Your task to perform on an android device: change notifications settings Image 0: 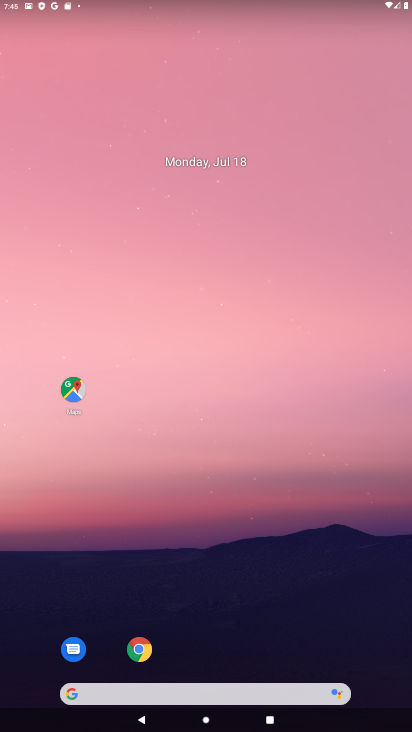
Step 0: drag from (282, 573) to (405, 237)
Your task to perform on an android device: change notifications settings Image 1: 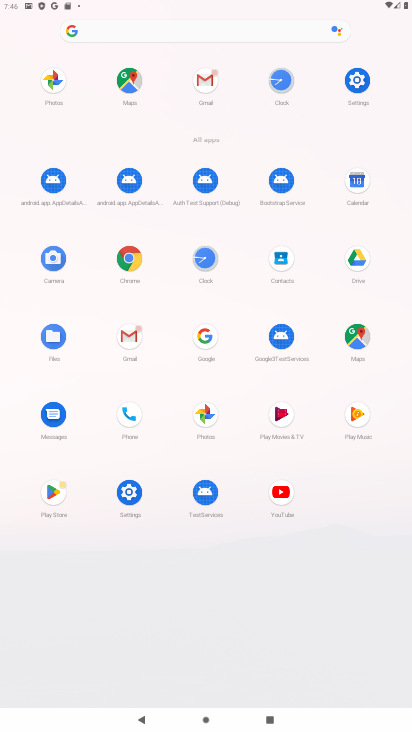
Step 1: click (126, 496)
Your task to perform on an android device: change notifications settings Image 2: 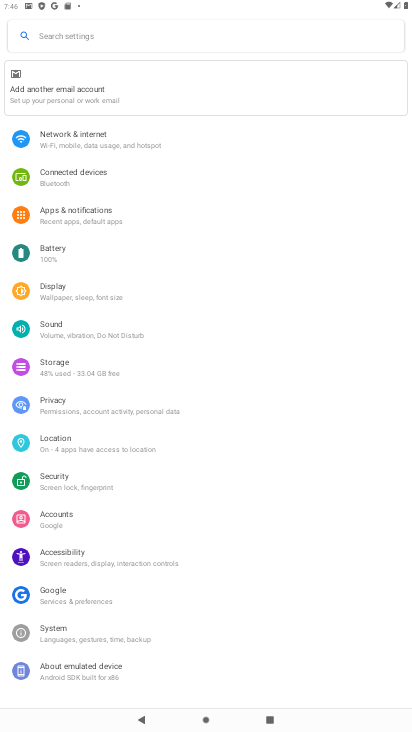
Step 2: click (90, 210)
Your task to perform on an android device: change notifications settings Image 3: 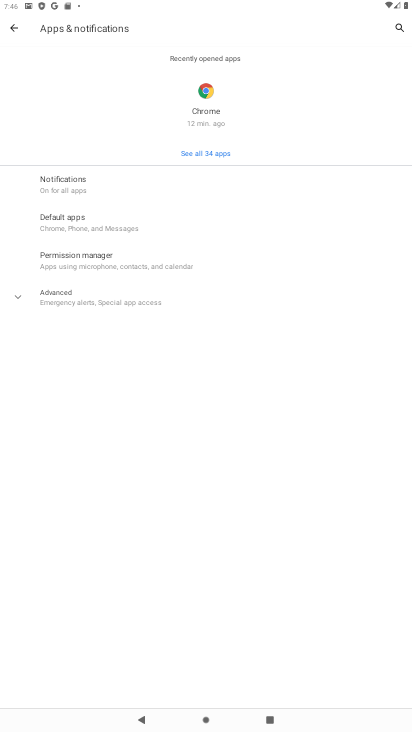
Step 3: click (122, 187)
Your task to perform on an android device: change notifications settings Image 4: 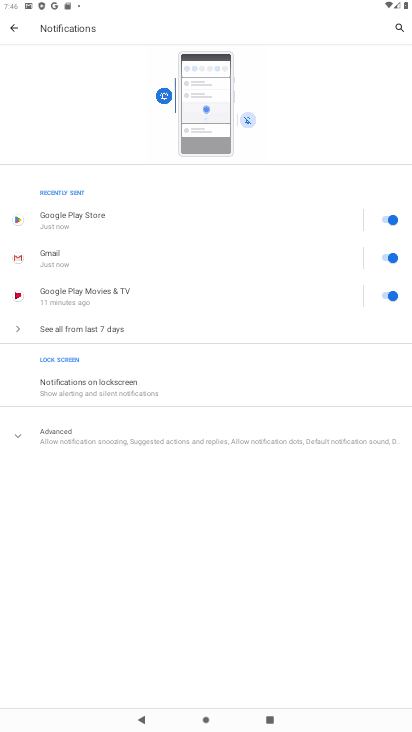
Step 4: click (151, 337)
Your task to perform on an android device: change notifications settings Image 5: 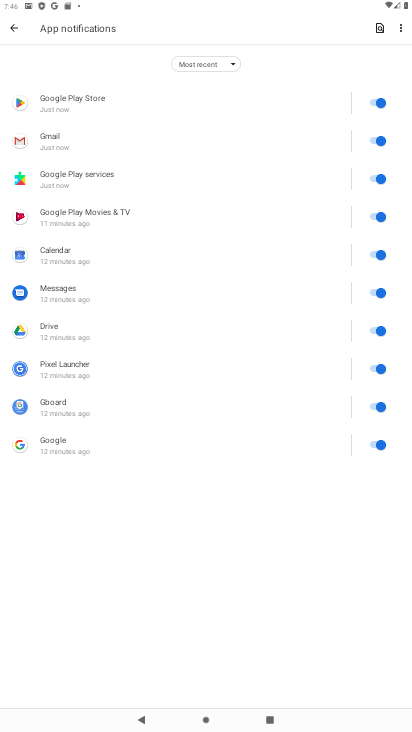
Step 5: click (379, 100)
Your task to perform on an android device: change notifications settings Image 6: 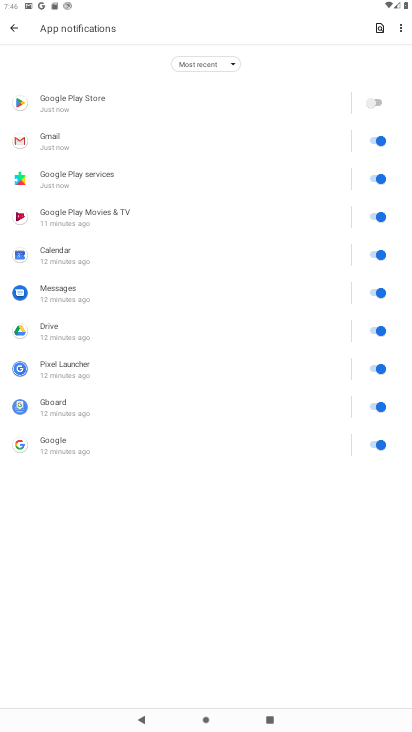
Step 6: click (379, 144)
Your task to perform on an android device: change notifications settings Image 7: 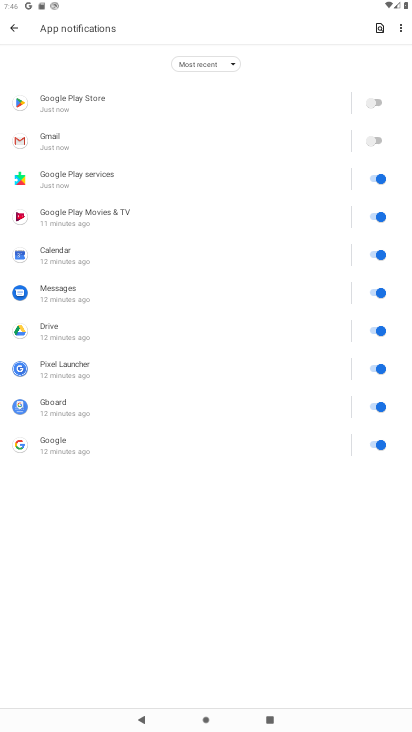
Step 7: click (379, 181)
Your task to perform on an android device: change notifications settings Image 8: 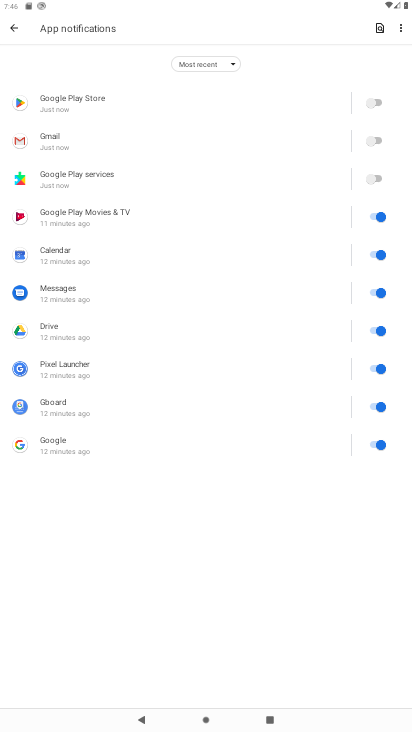
Step 8: click (379, 229)
Your task to perform on an android device: change notifications settings Image 9: 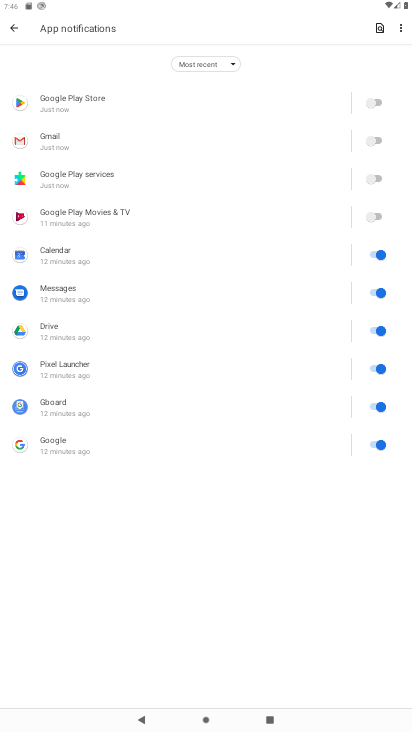
Step 9: click (379, 261)
Your task to perform on an android device: change notifications settings Image 10: 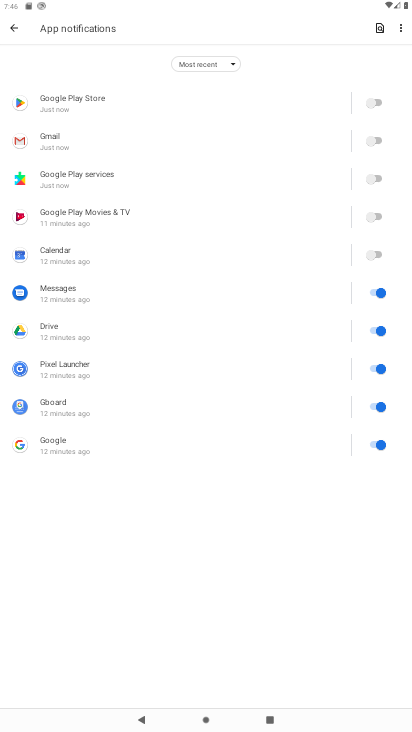
Step 10: click (383, 295)
Your task to perform on an android device: change notifications settings Image 11: 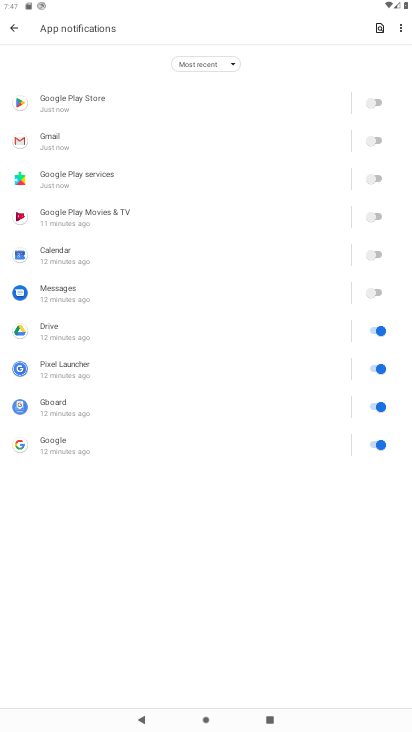
Step 11: click (384, 343)
Your task to perform on an android device: change notifications settings Image 12: 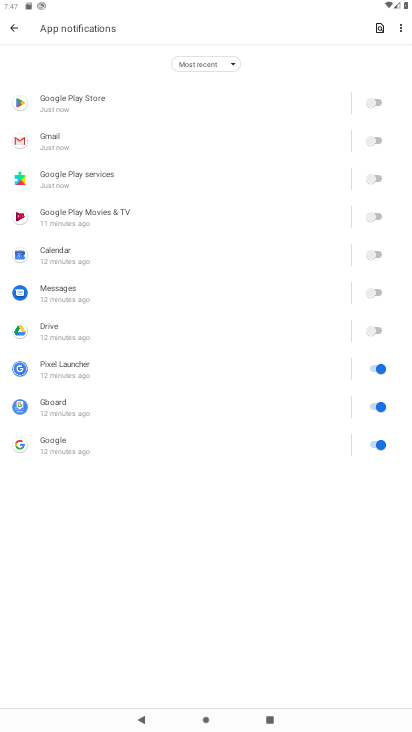
Step 12: click (376, 368)
Your task to perform on an android device: change notifications settings Image 13: 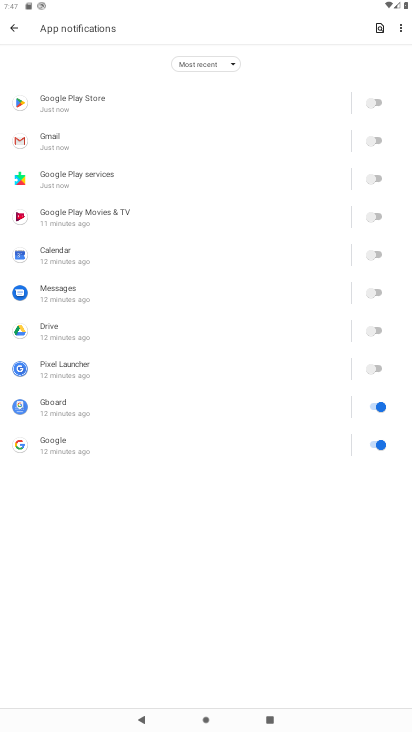
Step 13: click (384, 402)
Your task to perform on an android device: change notifications settings Image 14: 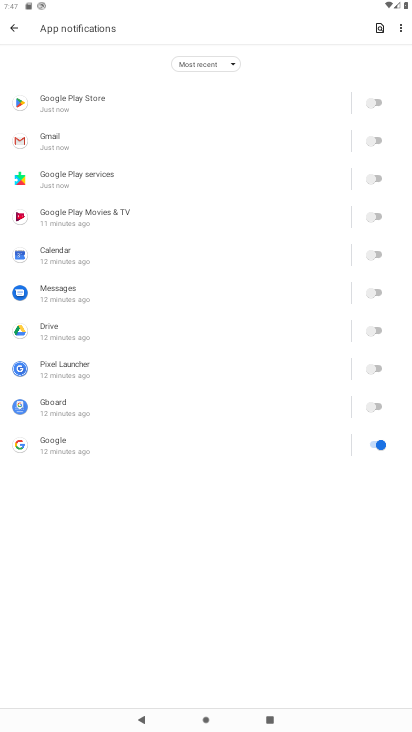
Step 14: click (381, 441)
Your task to perform on an android device: change notifications settings Image 15: 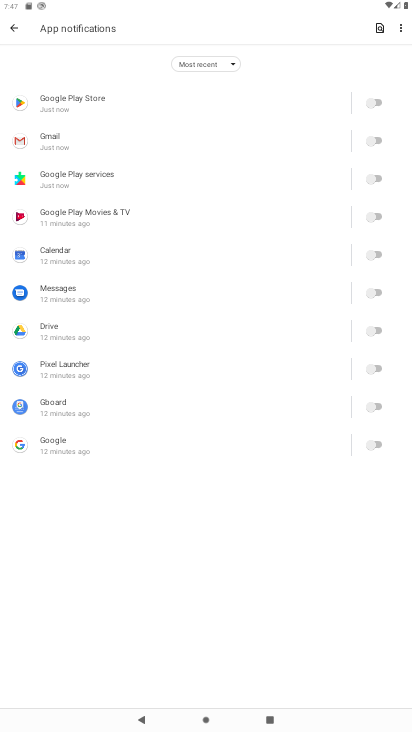
Step 15: click (18, 29)
Your task to perform on an android device: change notifications settings Image 16: 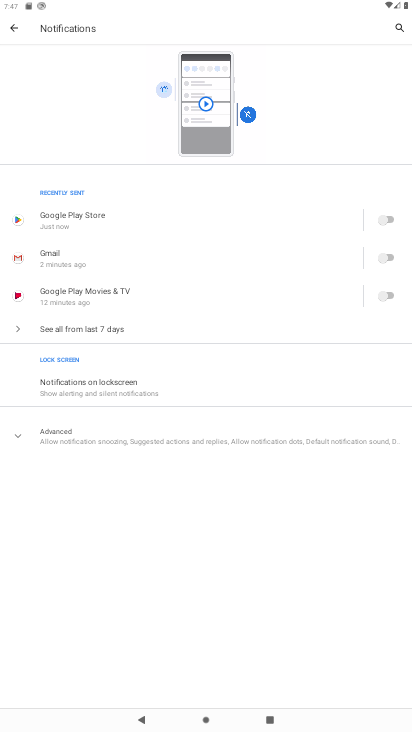
Step 16: click (180, 385)
Your task to perform on an android device: change notifications settings Image 17: 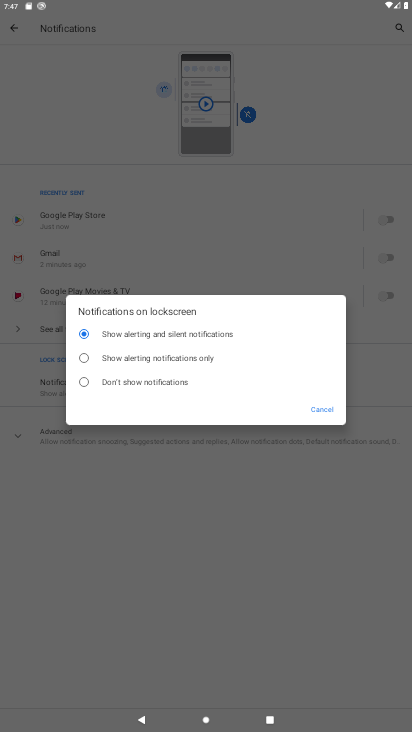
Step 17: click (199, 360)
Your task to perform on an android device: change notifications settings Image 18: 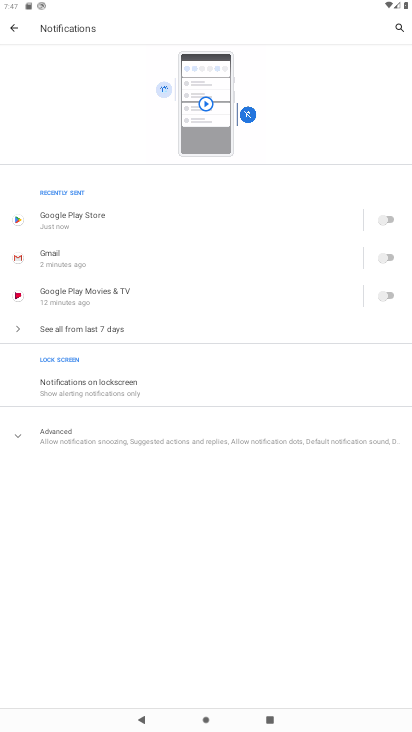
Step 18: click (118, 431)
Your task to perform on an android device: change notifications settings Image 19: 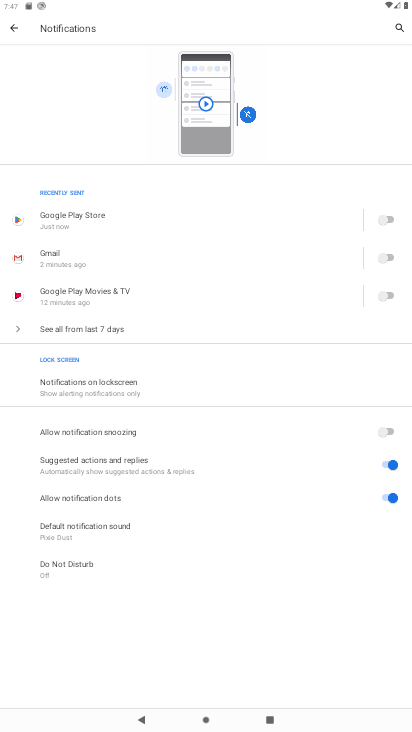
Step 19: click (396, 434)
Your task to perform on an android device: change notifications settings Image 20: 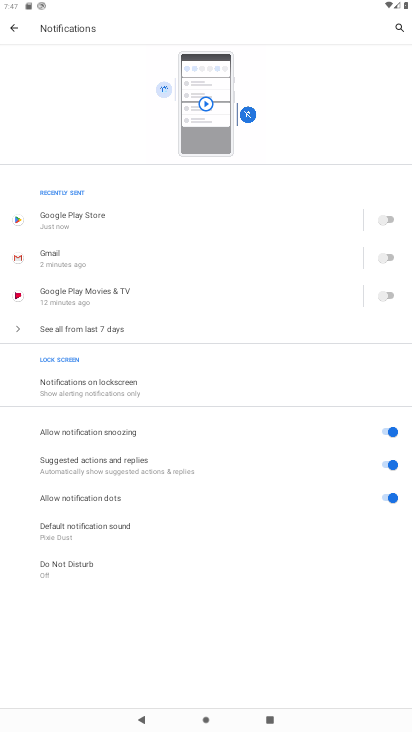
Step 20: click (387, 456)
Your task to perform on an android device: change notifications settings Image 21: 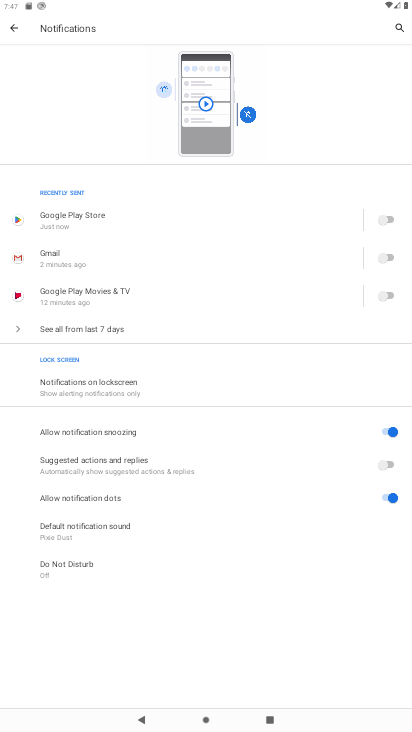
Step 21: click (385, 495)
Your task to perform on an android device: change notifications settings Image 22: 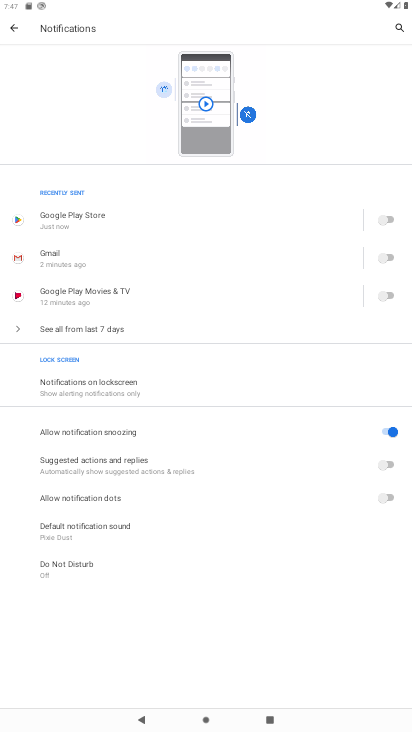
Step 22: task complete